Your task to perform on an android device: See recent photos Image 0: 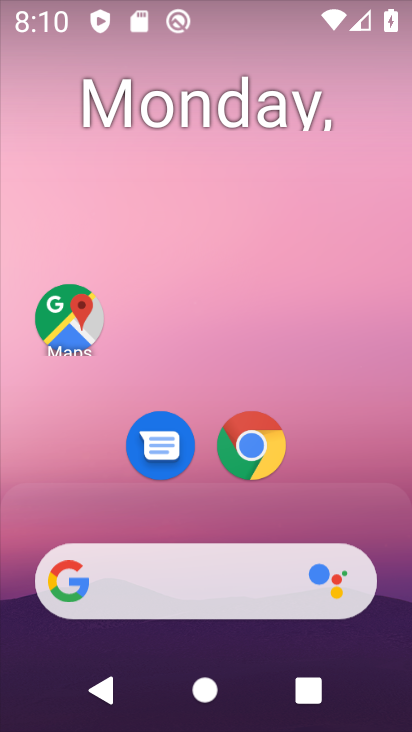
Step 0: drag from (206, 469) to (206, 110)
Your task to perform on an android device: See recent photos Image 1: 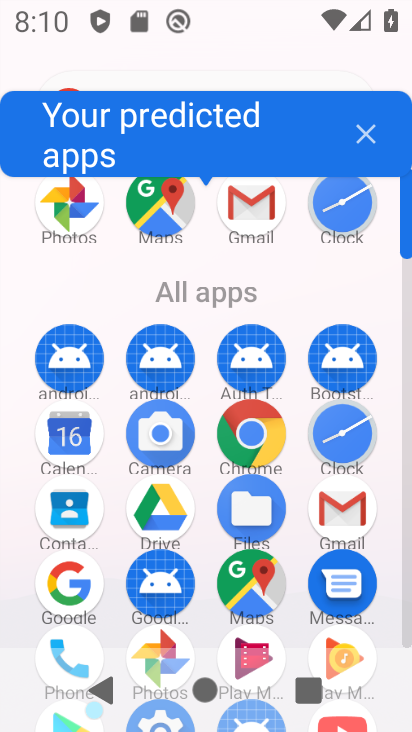
Step 1: drag from (202, 489) to (202, 211)
Your task to perform on an android device: See recent photos Image 2: 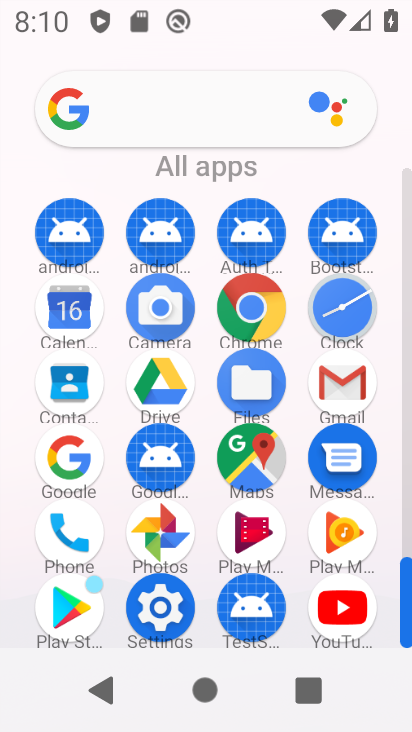
Step 2: click (164, 528)
Your task to perform on an android device: See recent photos Image 3: 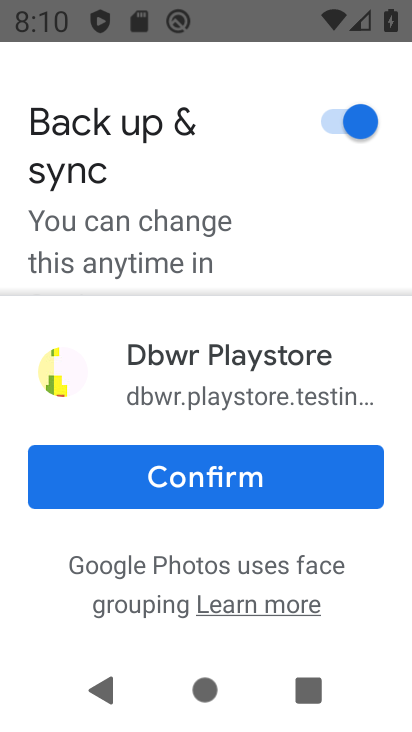
Step 3: click (207, 489)
Your task to perform on an android device: See recent photos Image 4: 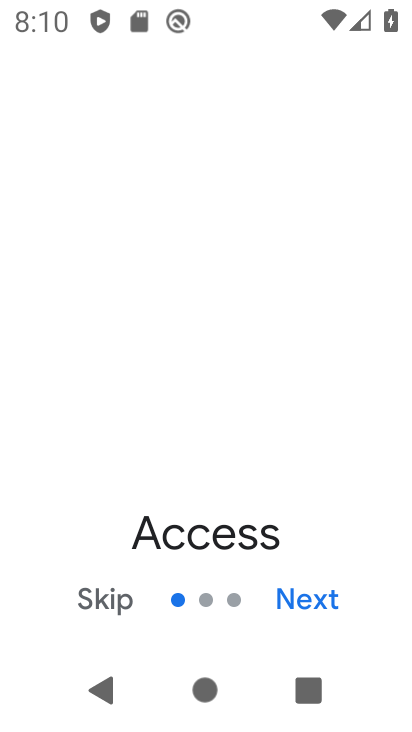
Step 4: click (303, 597)
Your task to perform on an android device: See recent photos Image 5: 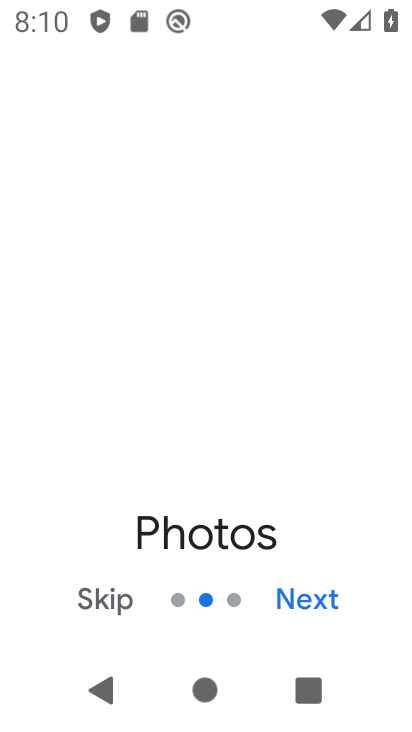
Step 5: click (303, 597)
Your task to perform on an android device: See recent photos Image 6: 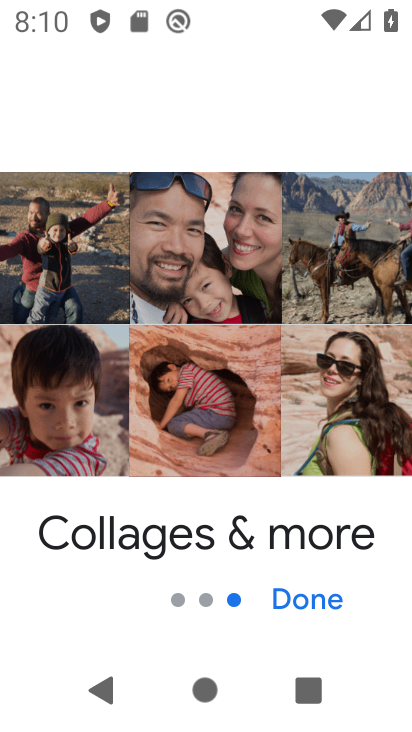
Step 6: click (303, 597)
Your task to perform on an android device: See recent photos Image 7: 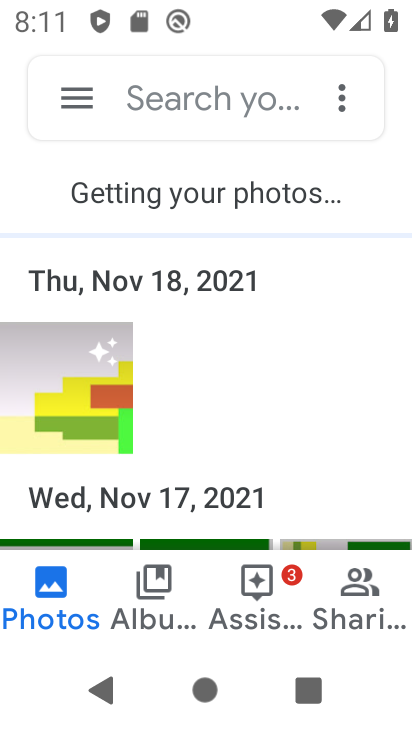
Step 7: task complete